Your task to perform on an android device: Go to Maps Image 0: 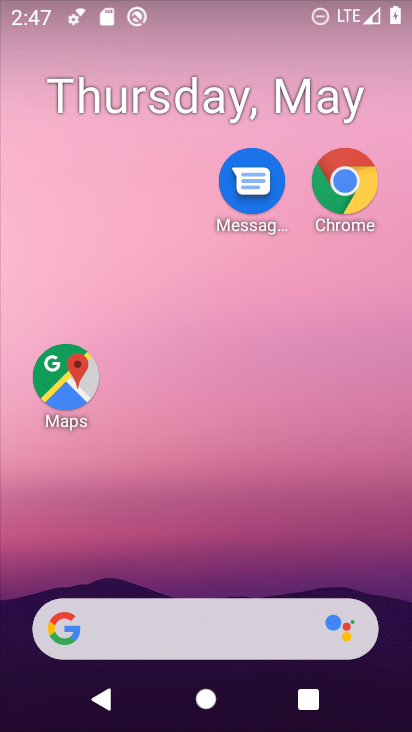
Step 0: drag from (0, 0) to (401, 554)
Your task to perform on an android device: Go to Maps Image 1: 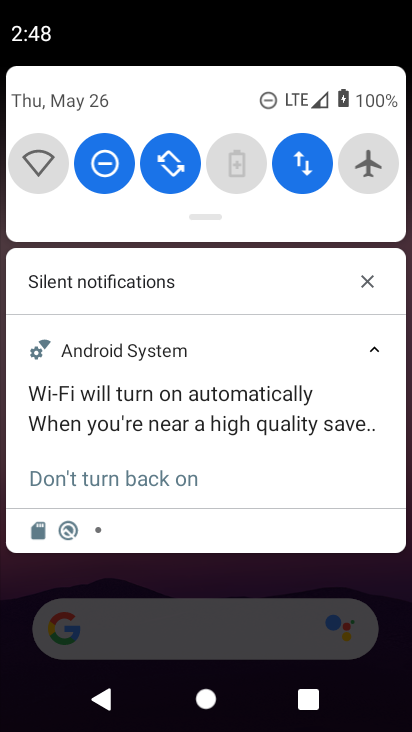
Step 1: drag from (260, 597) to (313, 62)
Your task to perform on an android device: Go to Maps Image 2: 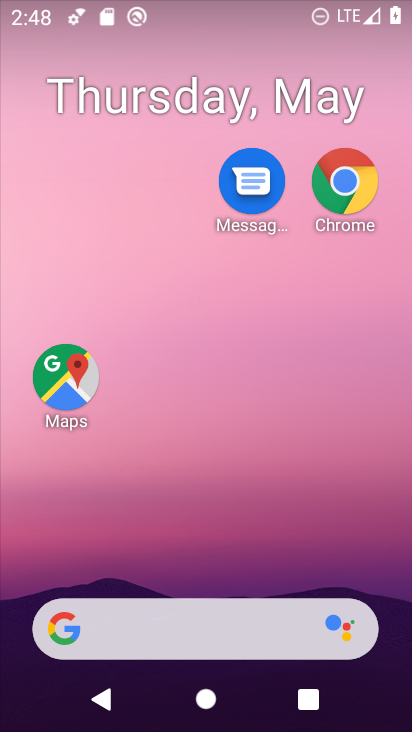
Step 2: drag from (271, 638) to (328, 39)
Your task to perform on an android device: Go to Maps Image 3: 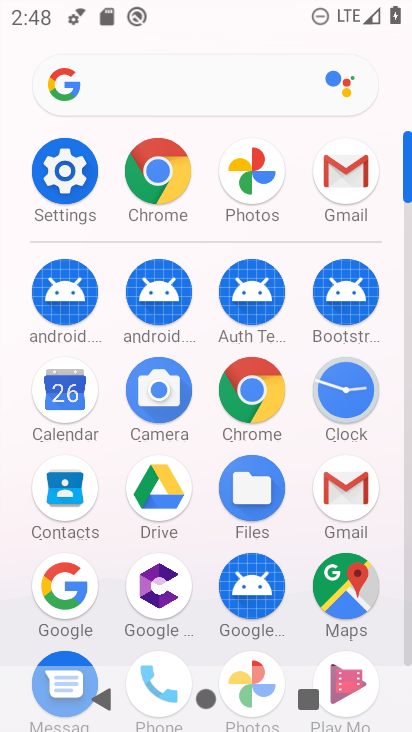
Step 3: click (349, 600)
Your task to perform on an android device: Go to Maps Image 4: 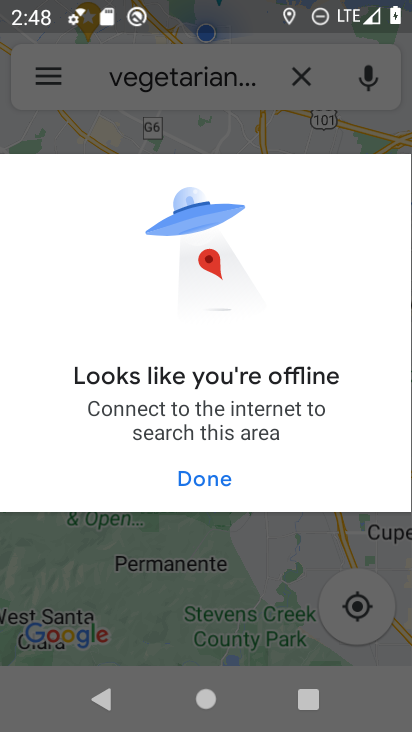
Step 4: task complete